Your task to perform on an android device: turn off airplane mode Image 0: 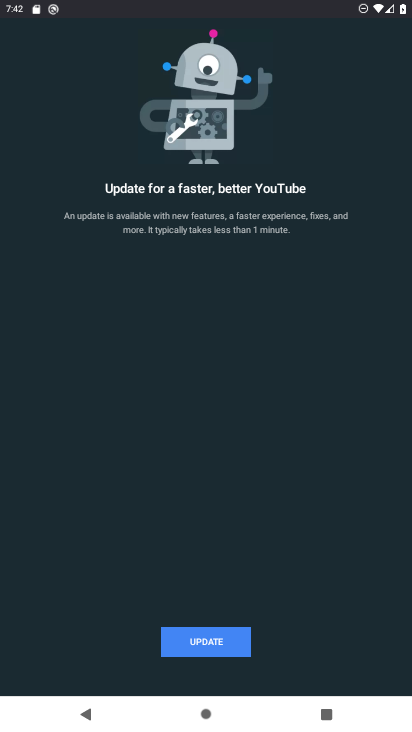
Step 0: drag from (388, 8) to (366, 407)
Your task to perform on an android device: turn off airplane mode Image 1: 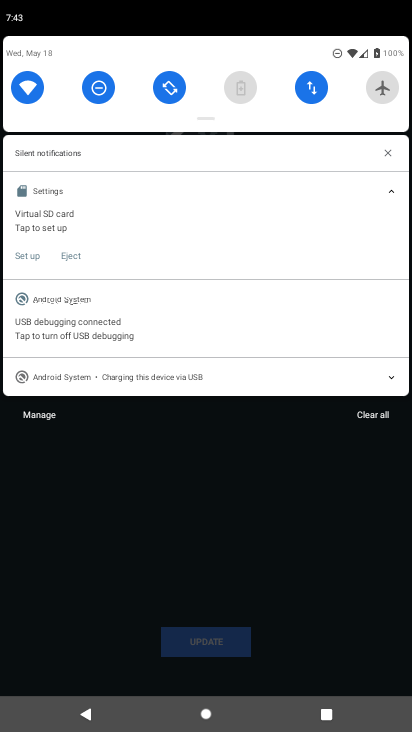
Step 1: task complete